Your task to perform on an android device: toggle data saver in the chrome app Image 0: 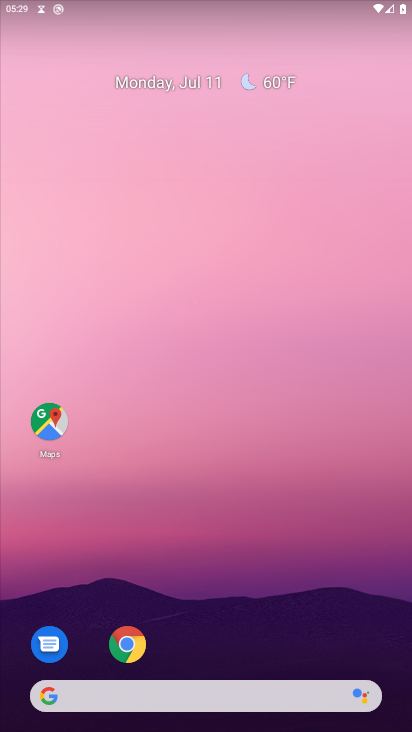
Step 0: click (130, 639)
Your task to perform on an android device: toggle data saver in the chrome app Image 1: 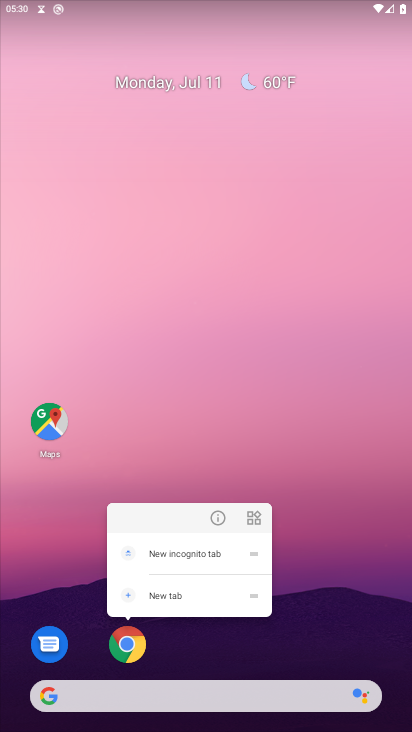
Step 1: click (129, 645)
Your task to perform on an android device: toggle data saver in the chrome app Image 2: 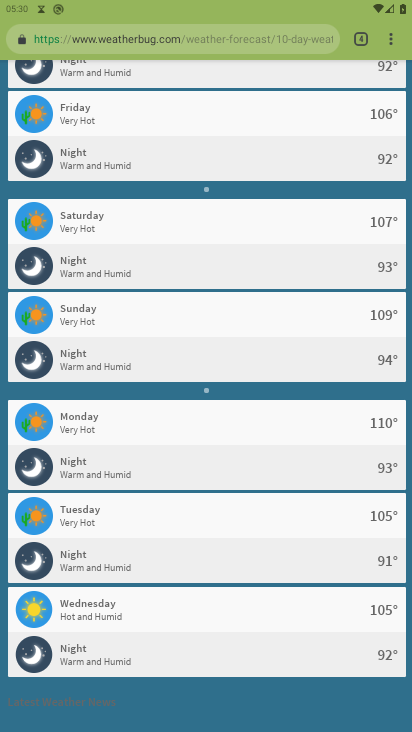
Step 2: drag from (245, 63) to (267, 399)
Your task to perform on an android device: toggle data saver in the chrome app Image 3: 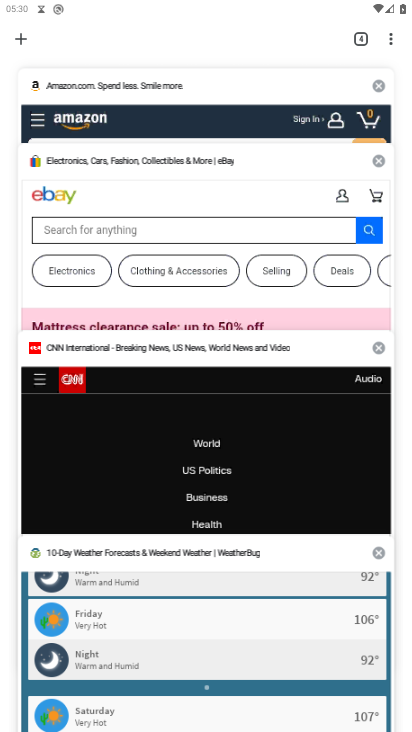
Step 3: click (387, 39)
Your task to perform on an android device: toggle data saver in the chrome app Image 4: 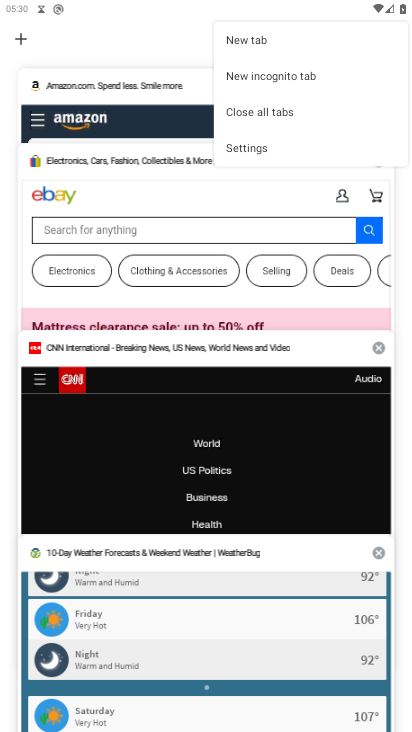
Step 4: click (243, 140)
Your task to perform on an android device: toggle data saver in the chrome app Image 5: 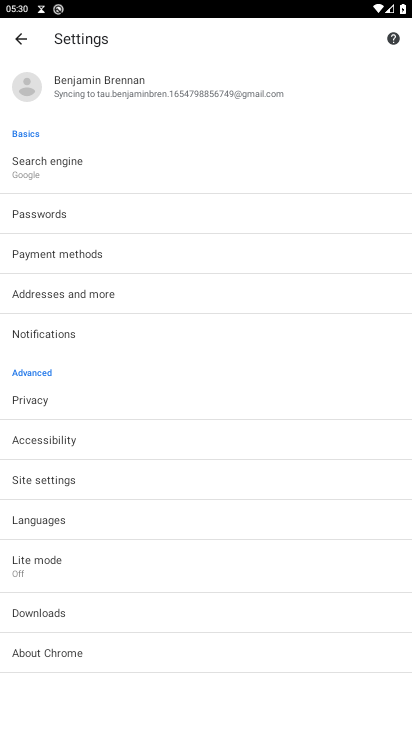
Step 5: click (51, 565)
Your task to perform on an android device: toggle data saver in the chrome app Image 6: 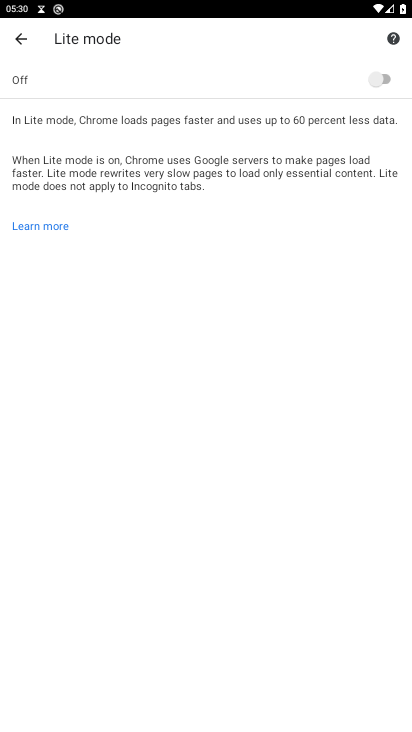
Step 6: click (379, 78)
Your task to perform on an android device: toggle data saver in the chrome app Image 7: 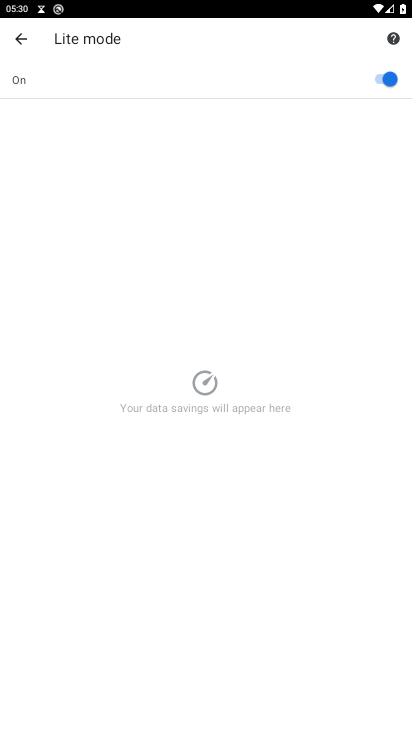
Step 7: task complete